Your task to perform on an android device: add a label to a message in the gmail app Image 0: 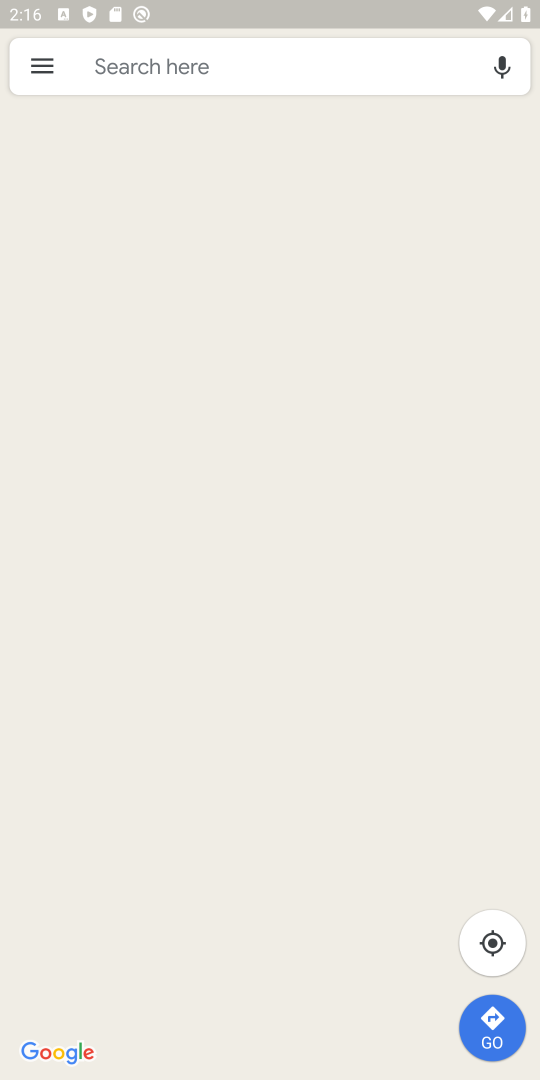
Step 0: press home button
Your task to perform on an android device: add a label to a message in the gmail app Image 1: 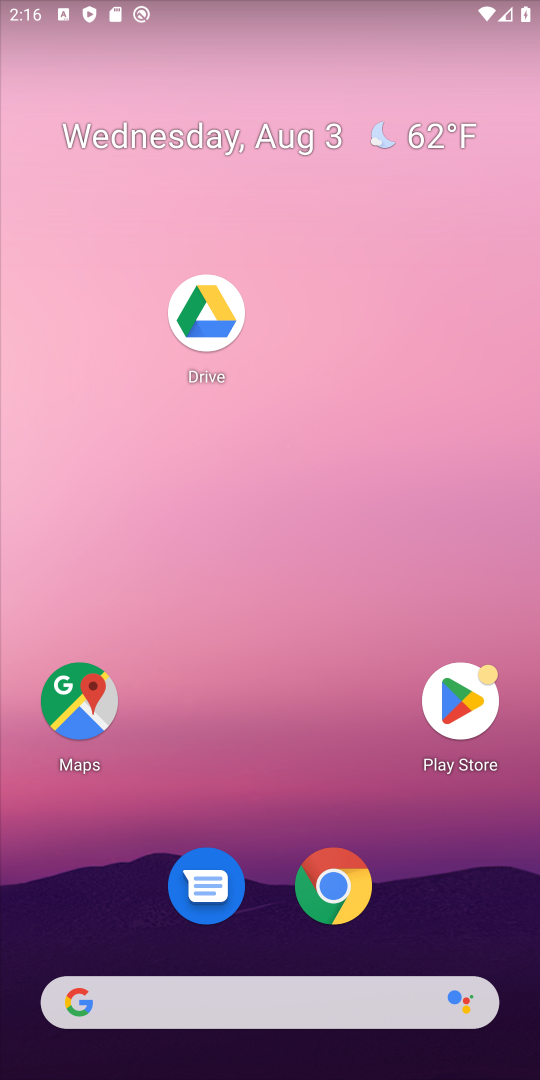
Step 1: drag from (230, 606) to (240, 159)
Your task to perform on an android device: add a label to a message in the gmail app Image 2: 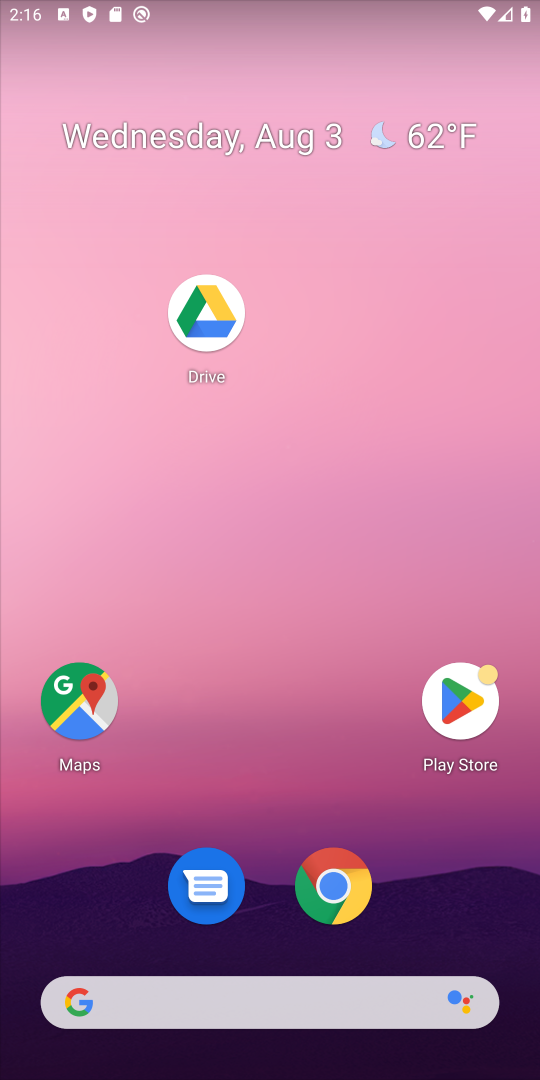
Step 2: drag from (264, 1014) to (200, 31)
Your task to perform on an android device: add a label to a message in the gmail app Image 3: 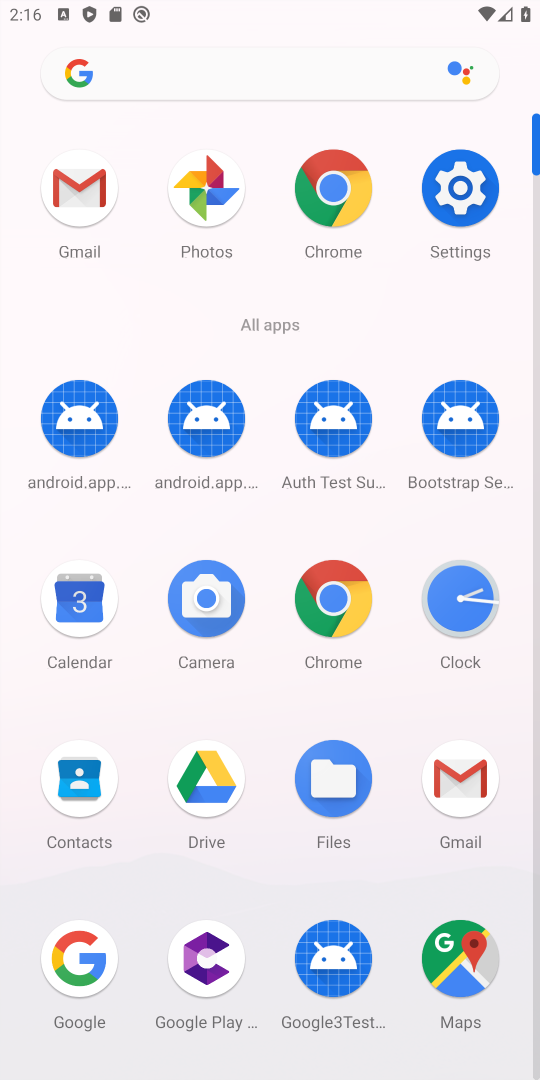
Step 3: click (488, 768)
Your task to perform on an android device: add a label to a message in the gmail app Image 4: 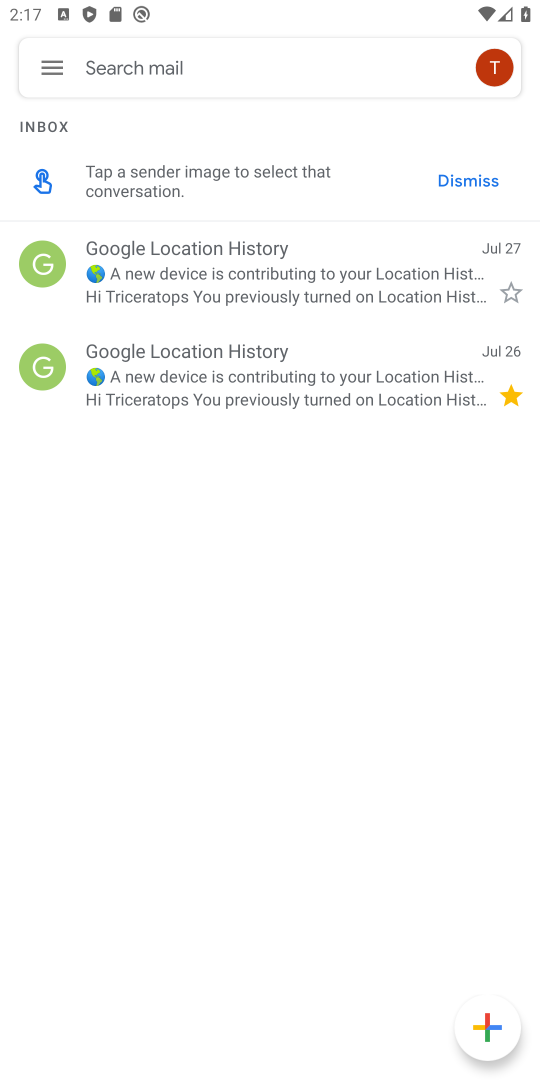
Step 4: click (250, 272)
Your task to perform on an android device: add a label to a message in the gmail app Image 5: 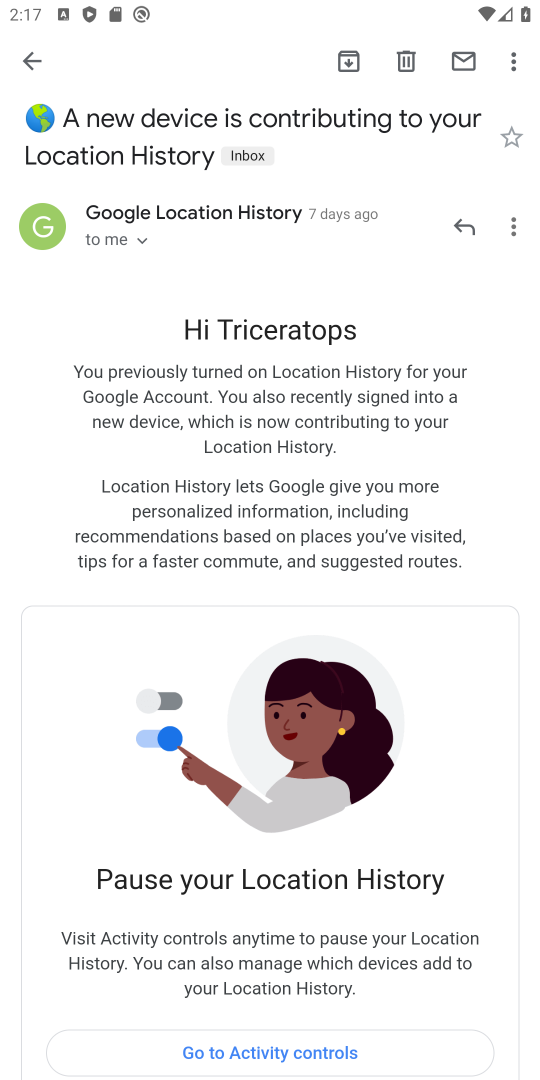
Step 5: click (508, 54)
Your task to perform on an android device: add a label to a message in the gmail app Image 6: 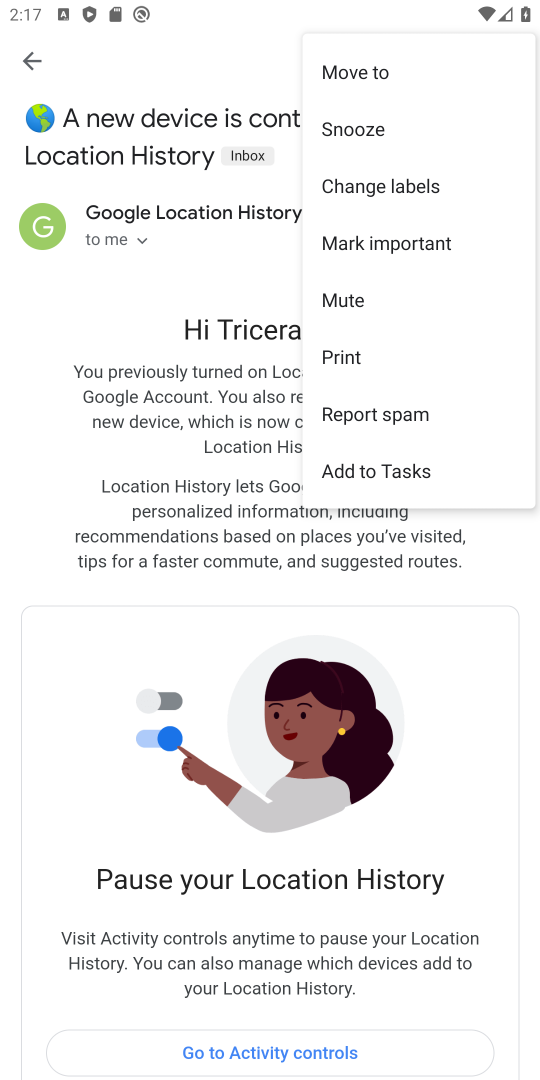
Step 6: click (396, 189)
Your task to perform on an android device: add a label to a message in the gmail app Image 7: 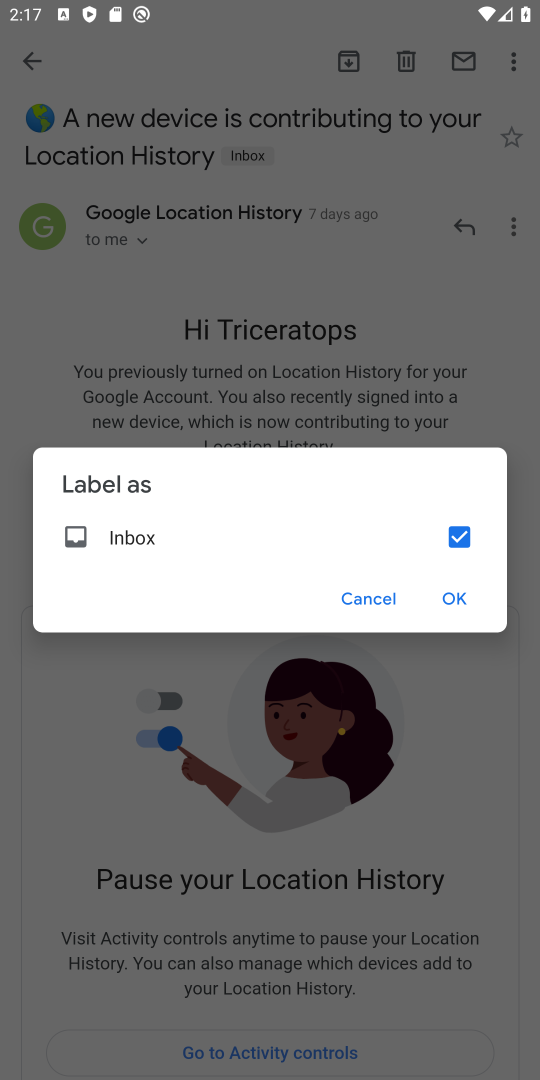
Step 7: click (453, 593)
Your task to perform on an android device: add a label to a message in the gmail app Image 8: 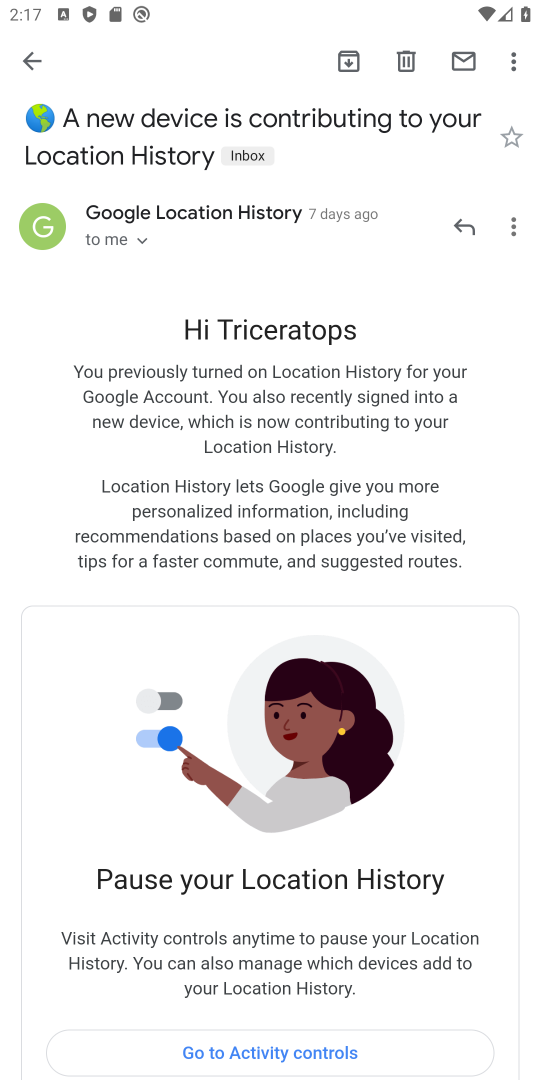
Step 8: task complete